Your task to perform on an android device: toggle airplane mode Image 0: 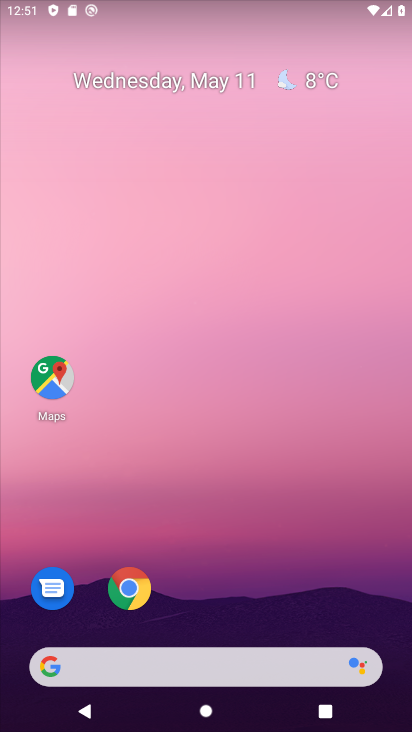
Step 0: drag from (311, 566) to (366, 166)
Your task to perform on an android device: toggle airplane mode Image 1: 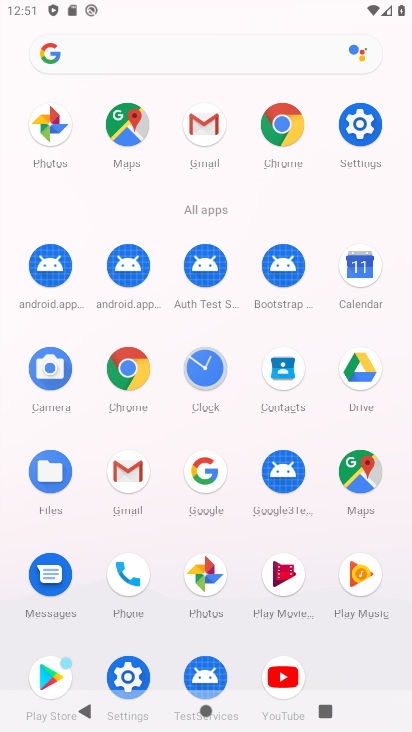
Step 1: click (367, 142)
Your task to perform on an android device: toggle airplane mode Image 2: 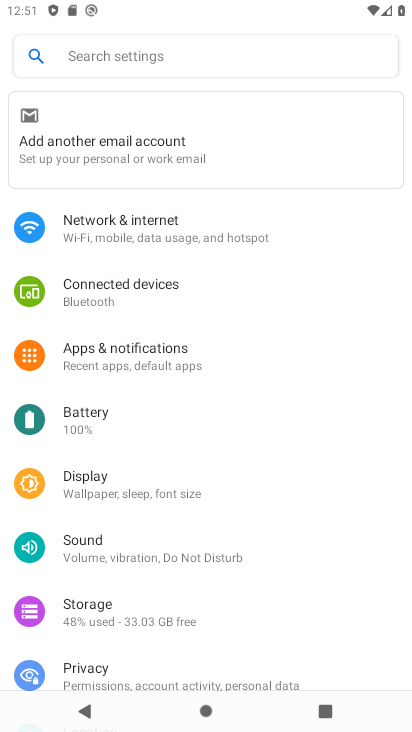
Step 2: click (250, 240)
Your task to perform on an android device: toggle airplane mode Image 3: 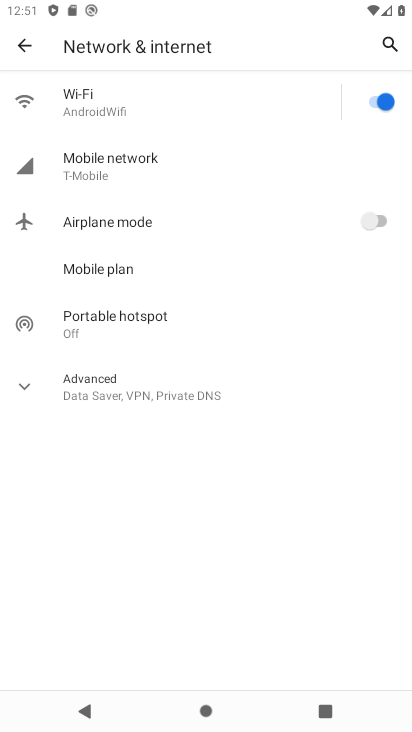
Step 3: click (379, 219)
Your task to perform on an android device: toggle airplane mode Image 4: 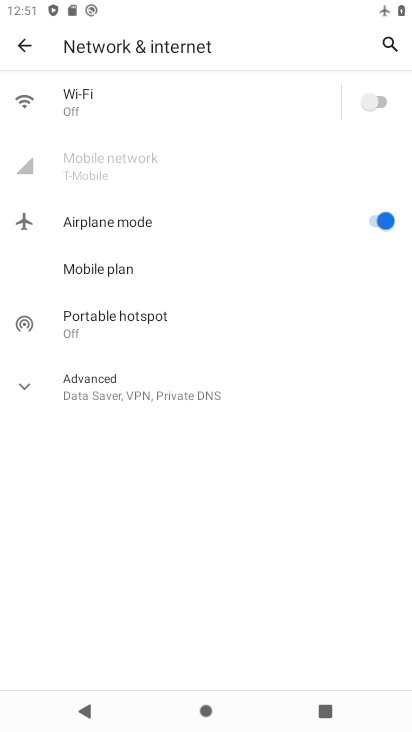
Step 4: task complete